Your task to perform on an android device: Search for lg ultragear on costco, select the first entry, add it to the cart, then select checkout. Image 0: 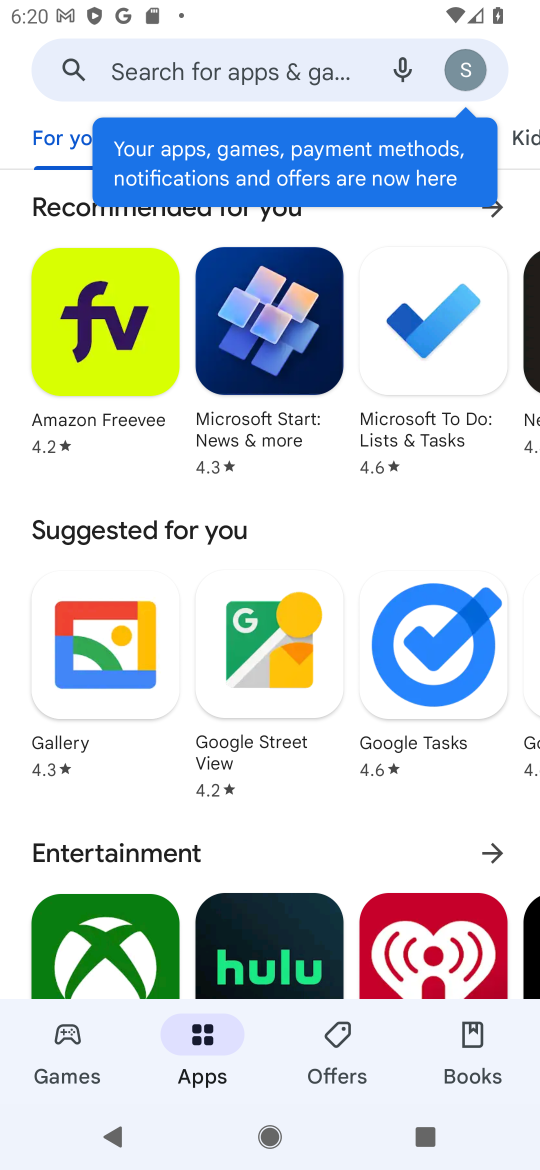
Step 0: click (240, 94)
Your task to perform on an android device: Search for lg ultragear on costco, select the first entry, add it to the cart, then select checkout. Image 1: 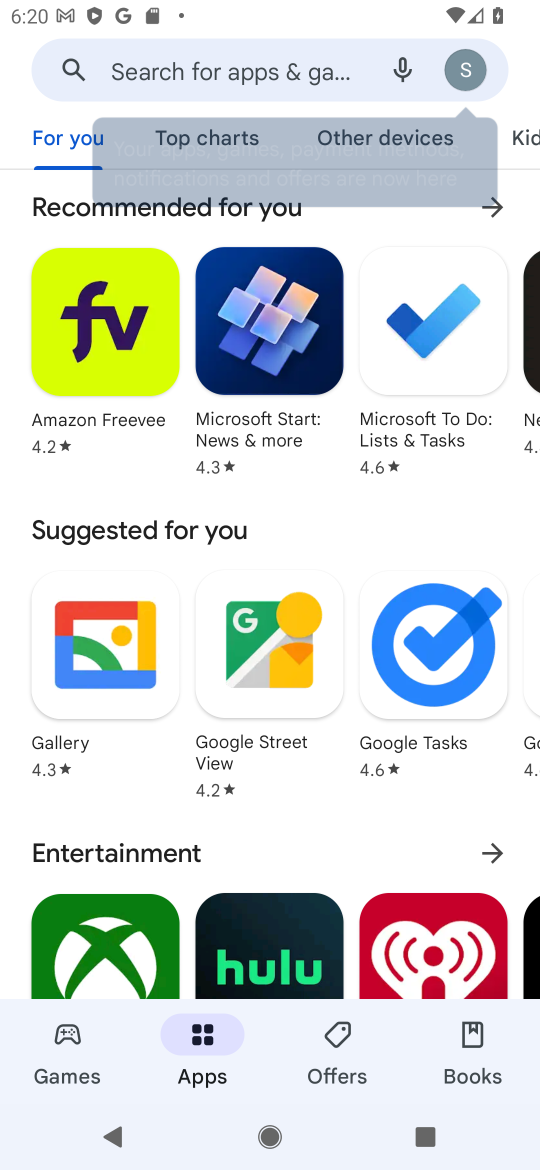
Step 1: press home button
Your task to perform on an android device: Search for lg ultragear on costco, select the first entry, add it to the cart, then select checkout. Image 2: 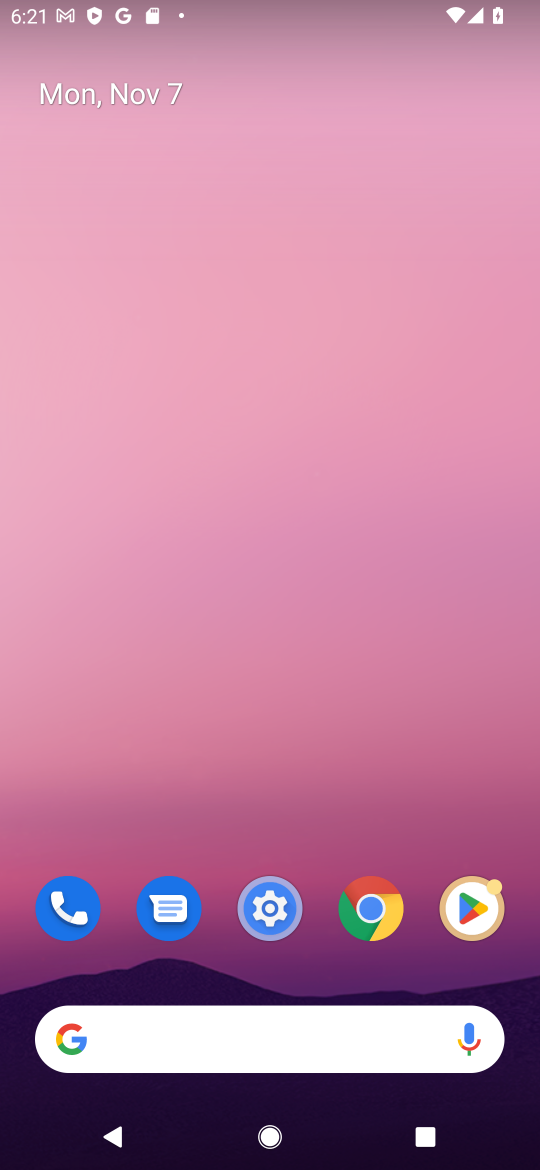
Step 2: click (229, 1052)
Your task to perform on an android device: Search for lg ultragear on costco, select the first entry, add it to the cart, then select checkout. Image 3: 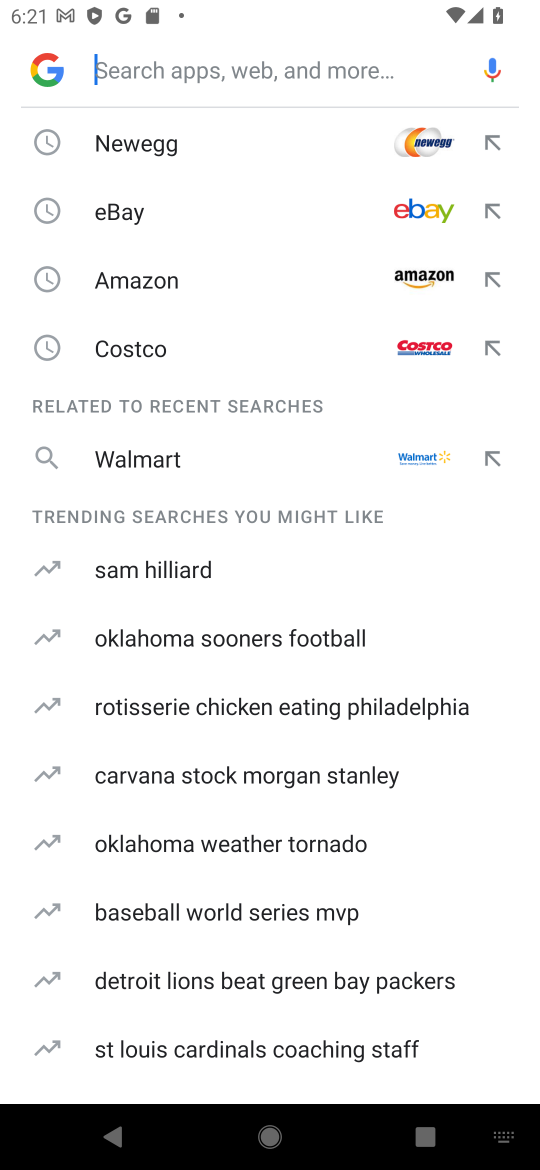
Step 3: click (266, 350)
Your task to perform on an android device: Search for lg ultragear on costco, select the first entry, add it to the cart, then select checkout. Image 4: 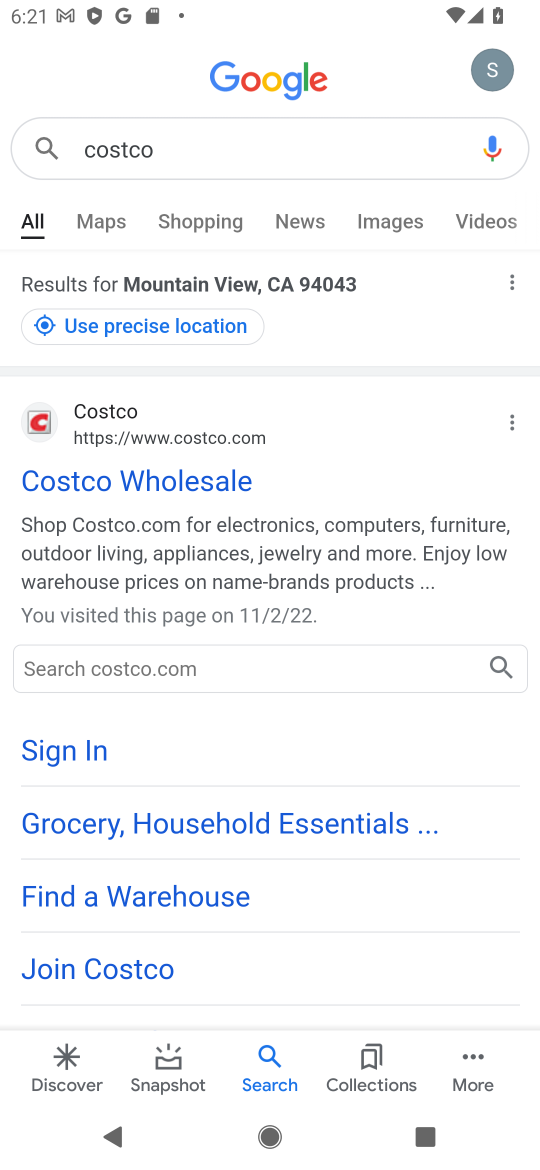
Step 4: click (177, 445)
Your task to perform on an android device: Search for lg ultragear on costco, select the first entry, add it to the cart, then select checkout. Image 5: 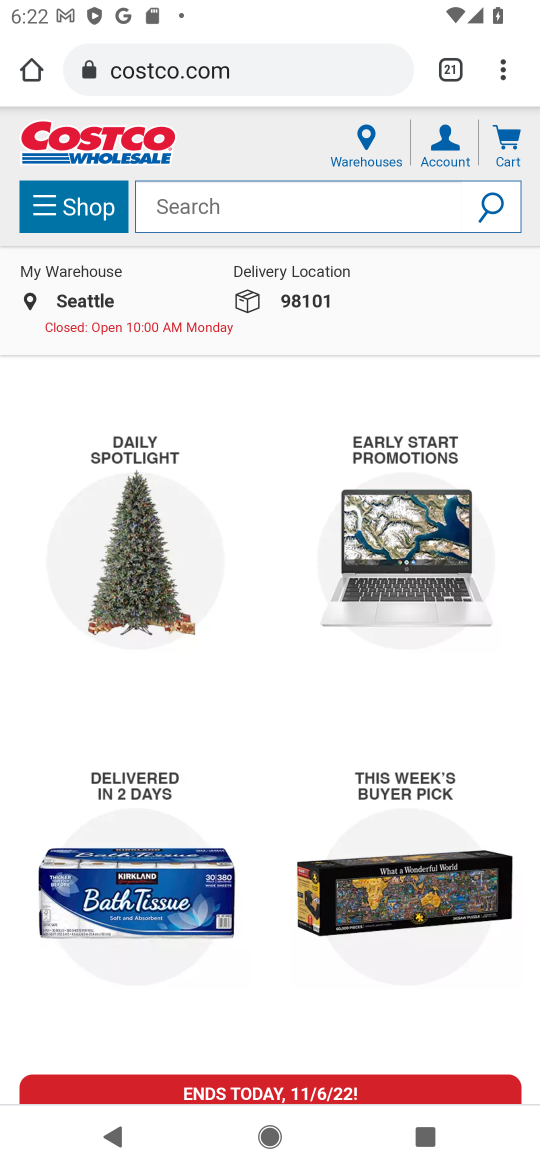
Step 5: task complete